Your task to perform on an android device: Go to Google Image 0: 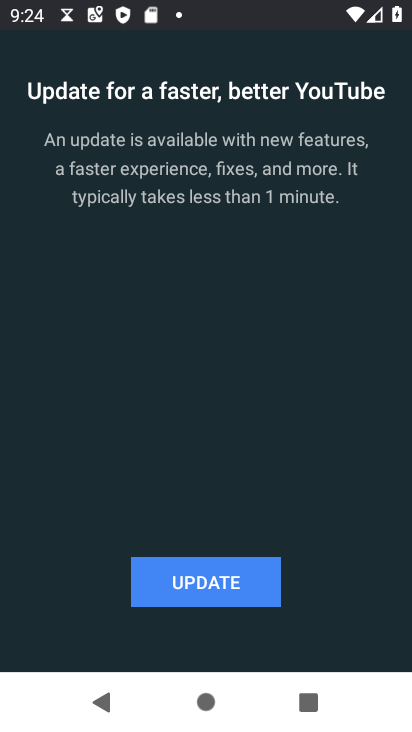
Step 0: press home button
Your task to perform on an android device: Go to Google Image 1: 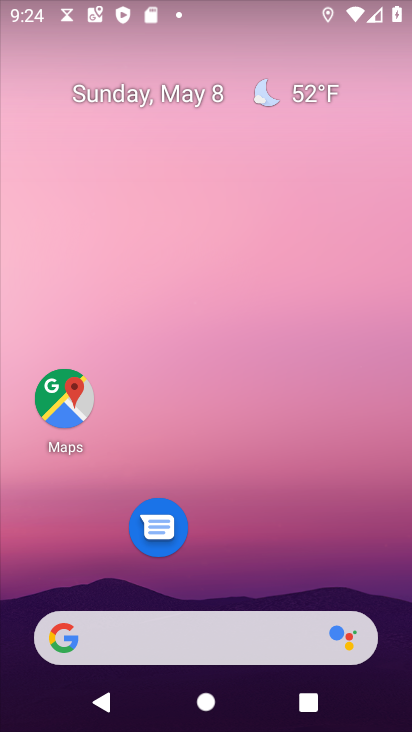
Step 1: drag from (282, 558) to (251, 80)
Your task to perform on an android device: Go to Google Image 2: 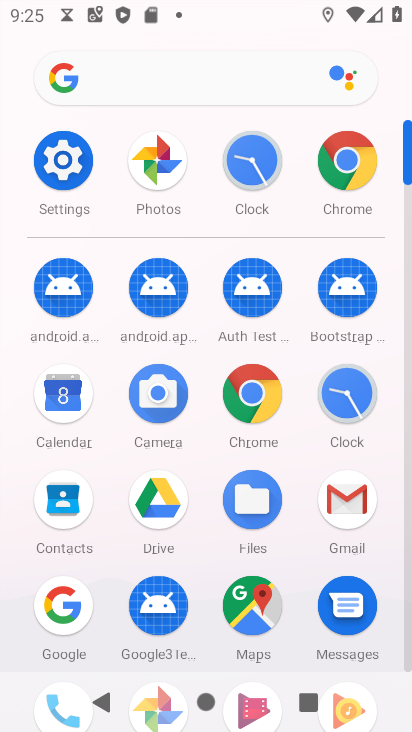
Step 2: drag from (194, 550) to (207, 363)
Your task to perform on an android device: Go to Google Image 3: 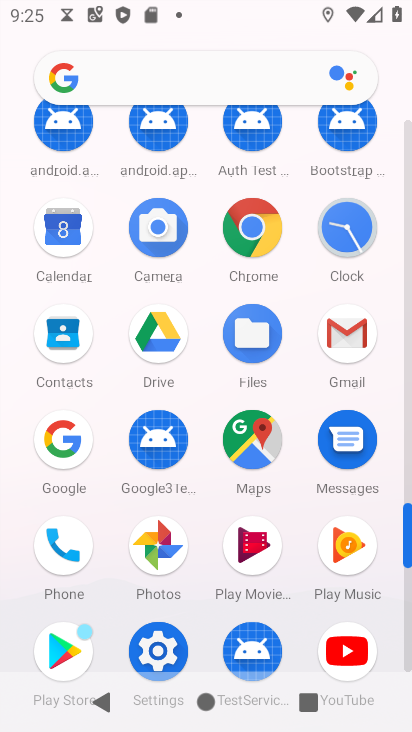
Step 3: click (59, 436)
Your task to perform on an android device: Go to Google Image 4: 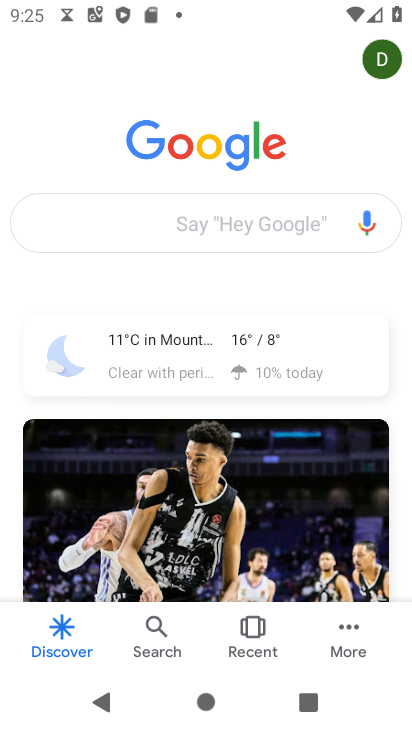
Step 4: task complete